Your task to perform on an android device: Open Chrome and go to settings Image 0: 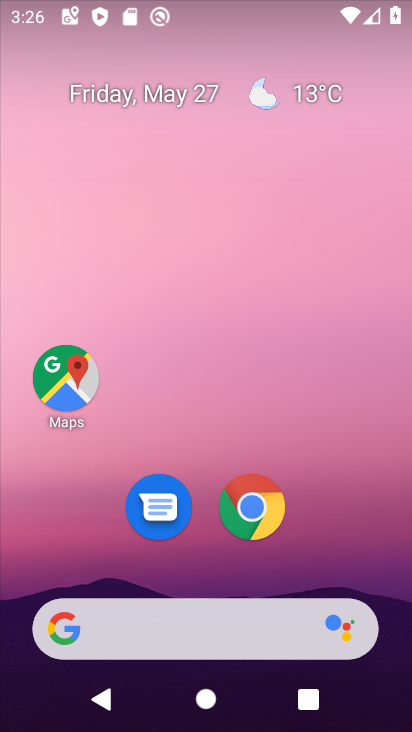
Step 0: click (267, 517)
Your task to perform on an android device: Open Chrome and go to settings Image 1: 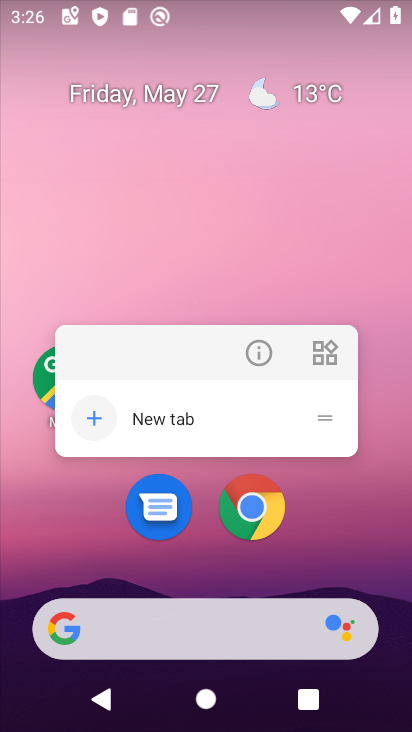
Step 1: click (230, 518)
Your task to perform on an android device: Open Chrome and go to settings Image 2: 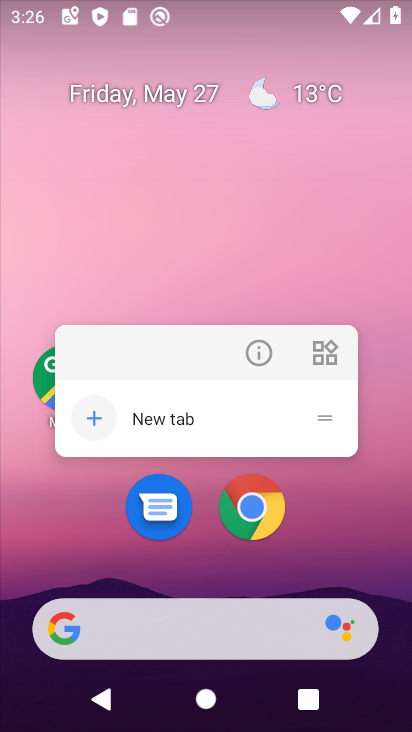
Step 2: click (242, 508)
Your task to perform on an android device: Open Chrome and go to settings Image 3: 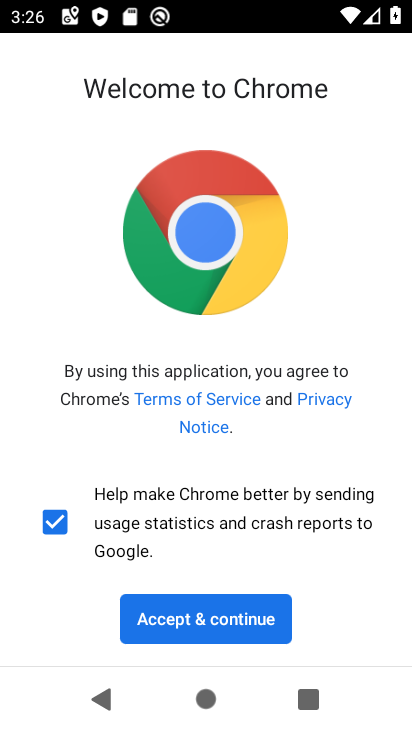
Step 3: click (216, 628)
Your task to perform on an android device: Open Chrome and go to settings Image 4: 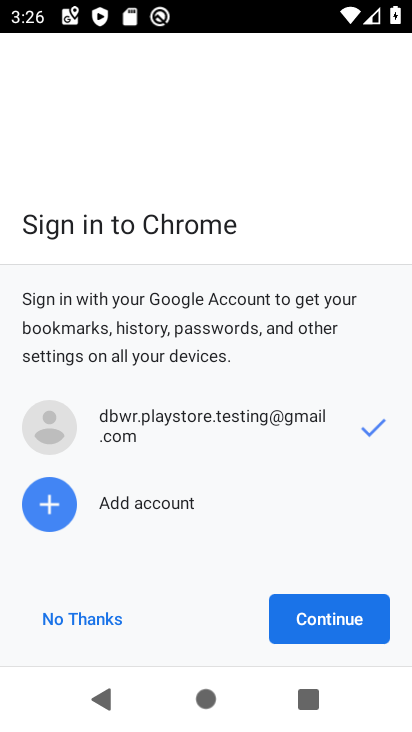
Step 4: click (306, 622)
Your task to perform on an android device: Open Chrome and go to settings Image 5: 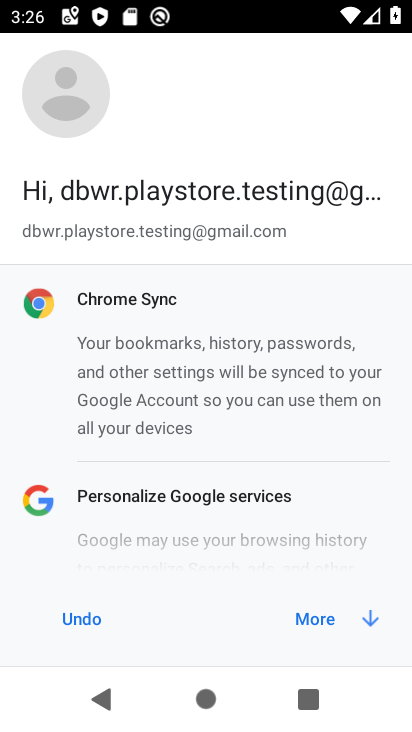
Step 5: click (333, 622)
Your task to perform on an android device: Open Chrome and go to settings Image 6: 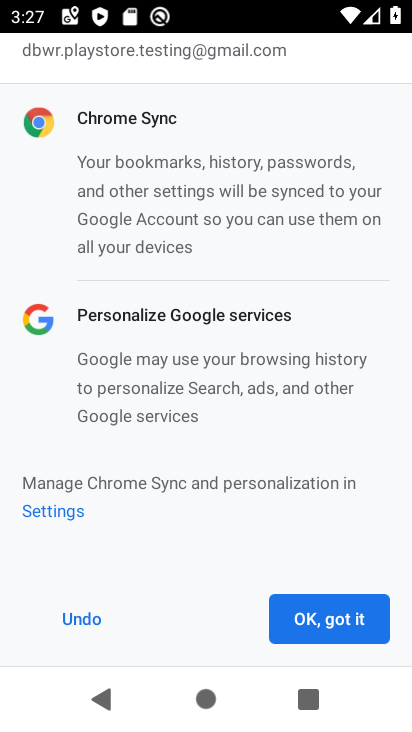
Step 6: click (340, 589)
Your task to perform on an android device: Open Chrome and go to settings Image 7: 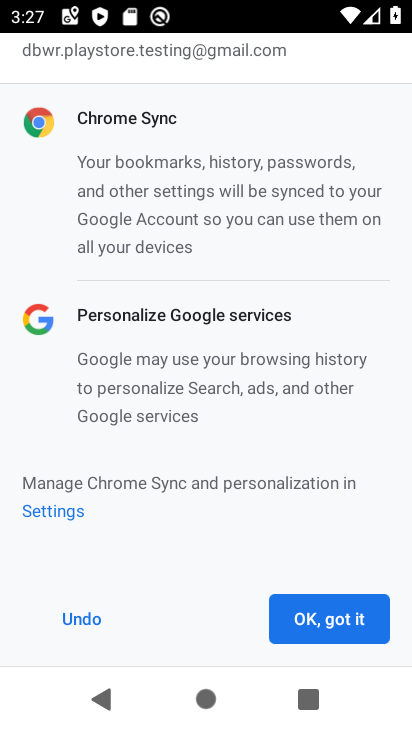
Step 7: click (344, 609)
Your task to perform on an android device: Open Chrome and go to settings Image 8: 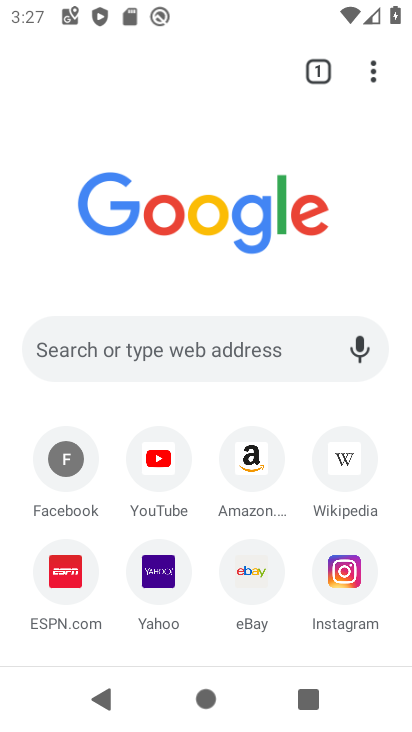
Step 8: task complete